Your task to perform on an android device: choose inbox layout in the gmail app Image 0: 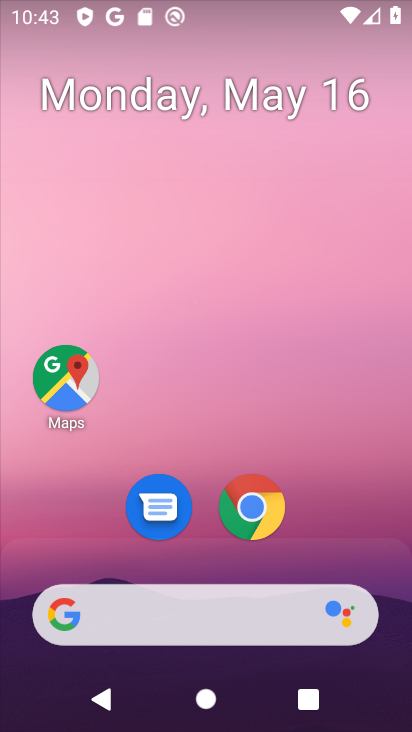
Step 0: click (267, 40)
Your task to perform on an android device: choose inbox layout in the gmail app Image 1: 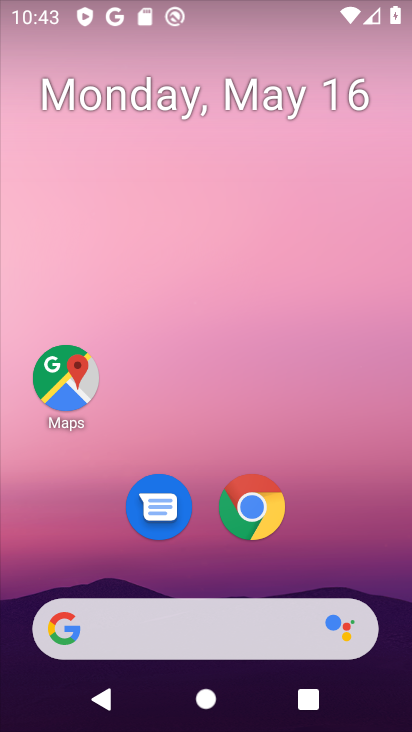
Step 1: drag from (313, 539) to (190, 218)
Your task to perform on an android device: choose inbox layout in the gmail app Image 2: 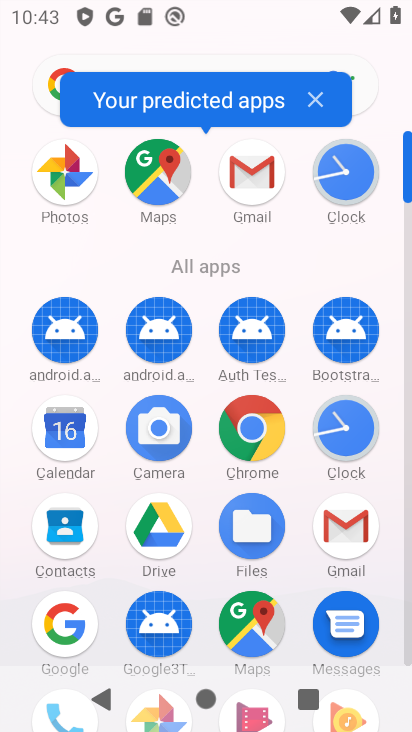
Step 2: click (239, 173)
Your task to perform on an android device: choose inbox layout in the gmail app Image 3: 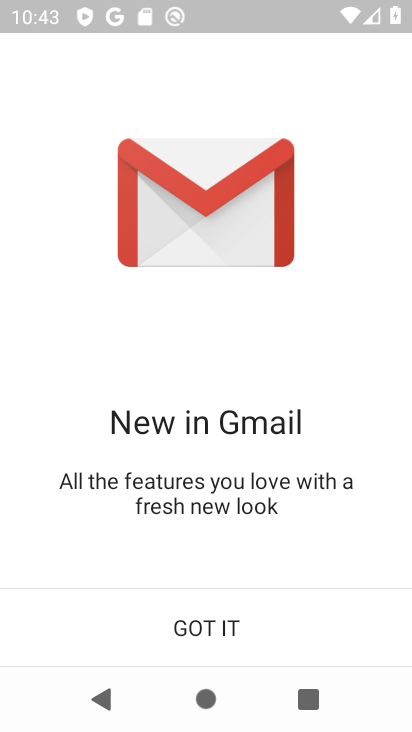
Step 3: click (209, 630)
Your task to perform on an android device: choose inbox layout in the gmail app Image 4: 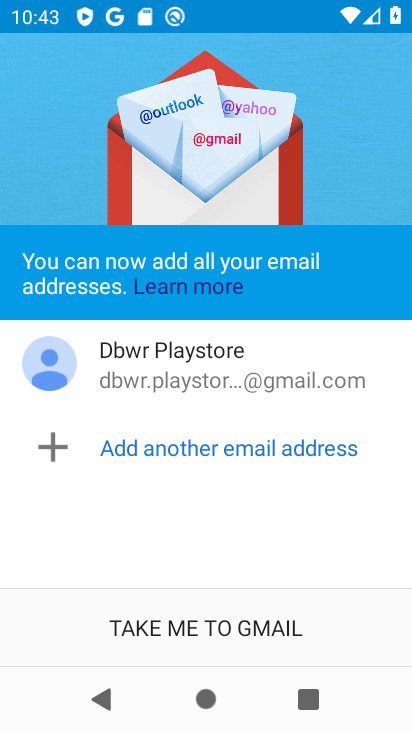
Step 4: click (210, 620)
Your task to perform on an android device: choose inbox layout in the gmail app Image 5: 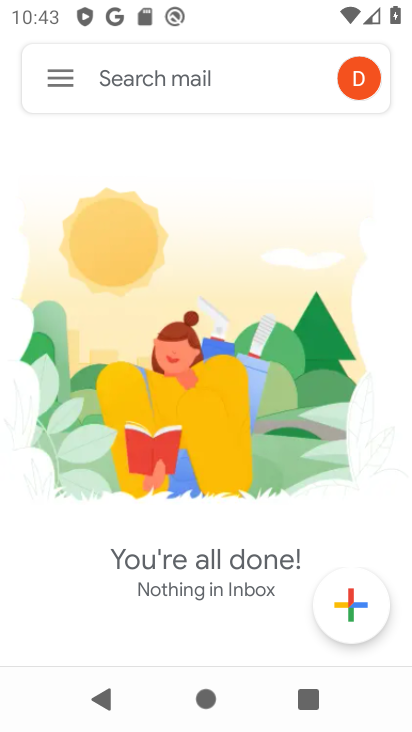
Step 5: click (69, 79)
Your task to perform on an android device: choose inbox layout in the gmail app Image 6: 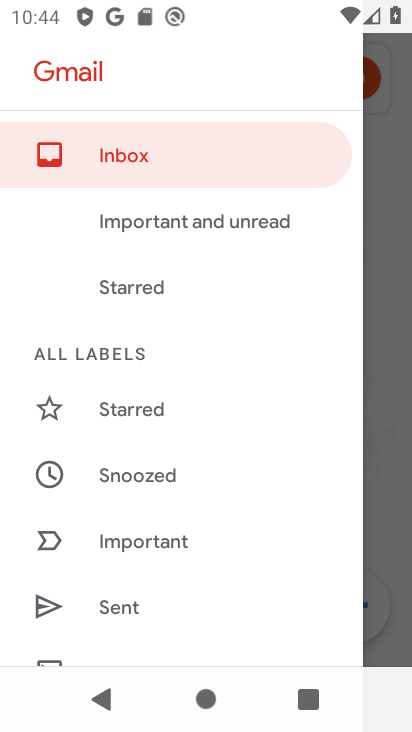
Step 6: drag from (236, 588) to (222, 194)
Your task to perform on an android device: choose inbox layout in the gmail app Image 7: 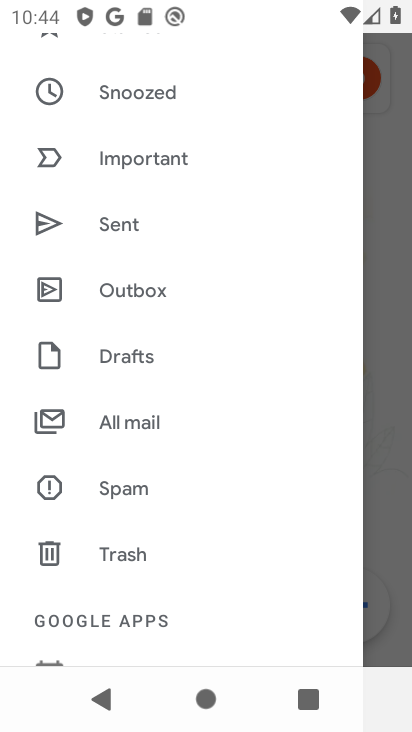
Step 7: drag from (206, 607) to (207, 206)
Your task to perform on an android device: choose inbox layout in the gmail app Image 8: 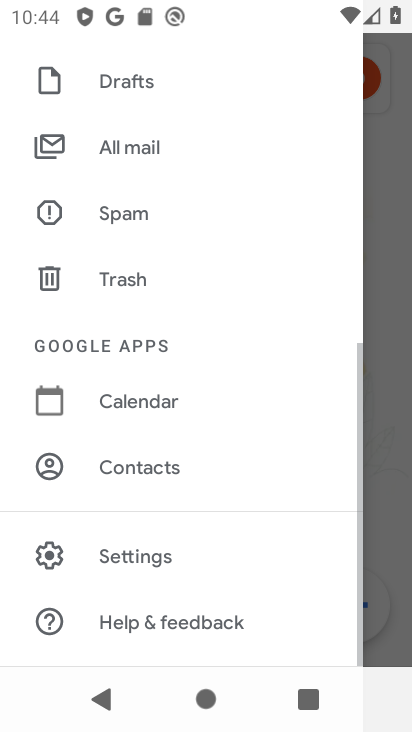
Step 8: click (132, 556)
Your task to perform on an android device: choose inbox layout in the gmail app Image 9: 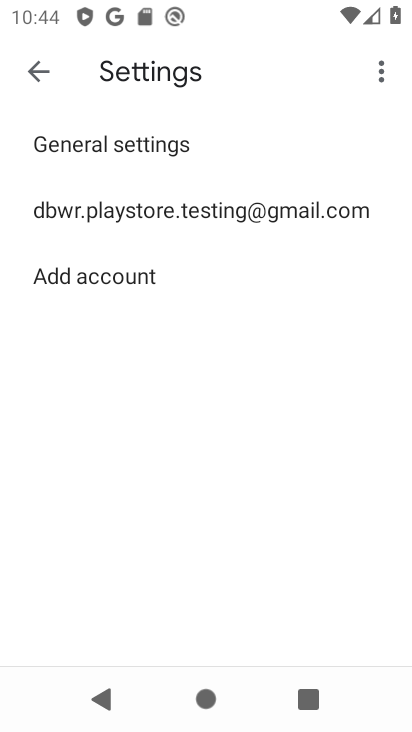
Step 9: click (164, 207)
Your task to perform on an android device: choose inbox layout in the gmail app Image 10: 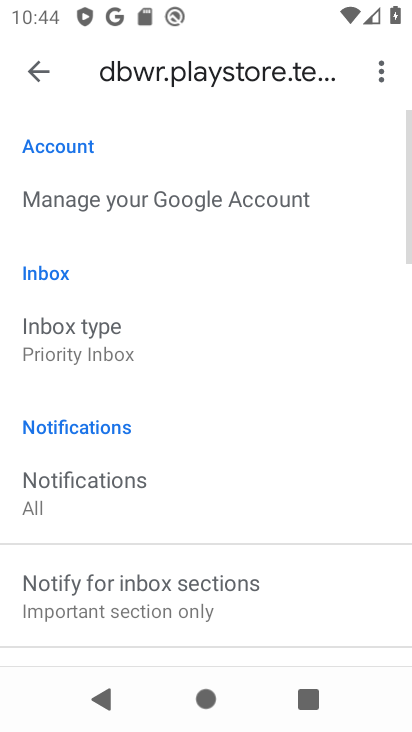
Step 10: click (80, 328)
Your task to perform on an android device: choose inbox layout in the gmail app Image 11: 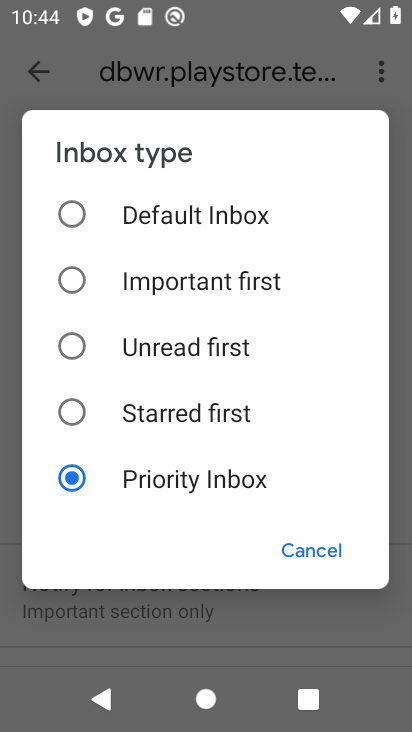
Step 11: click (77, 221)
Your task to perform on an android device: choose inbox layout in the gmail app Image 12: 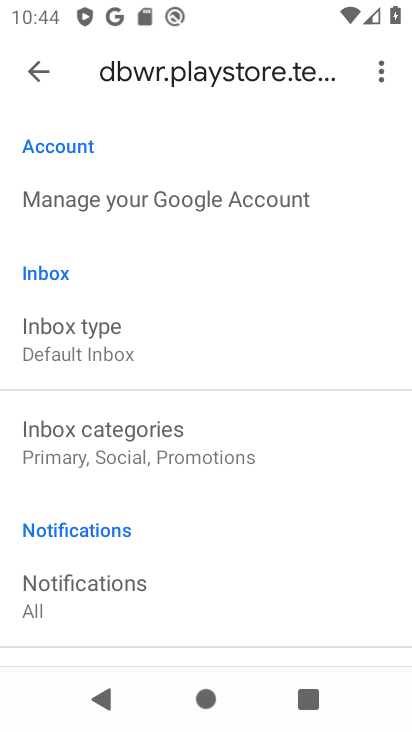
Step 12: task complete